Your task to perform on an android device: Add "logitech g910" to the cart on newegg Image 0: 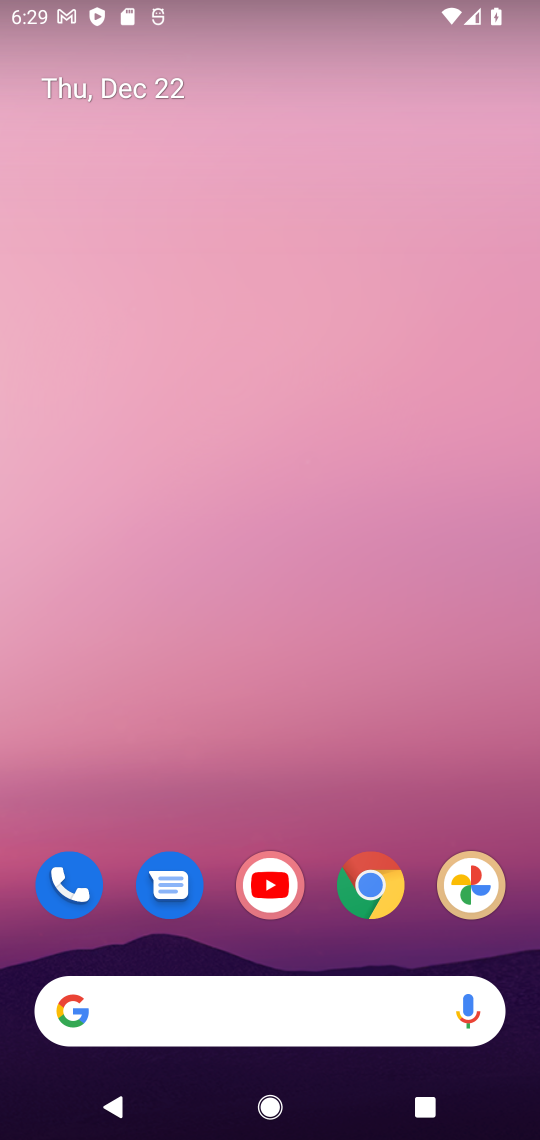
Step 0: click (375, 898)
Your task to perform on an android device: Add "logitech g910" to the cart on newegg Image 1: 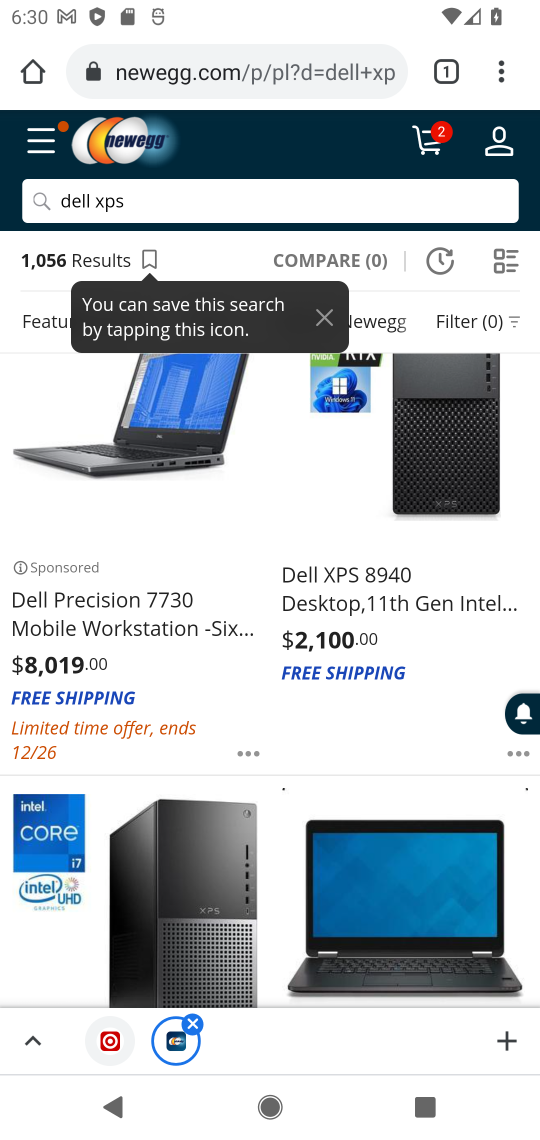
Step 1: click (134, 209)
Your task to perform on an android device: Add "logitech g910" to the cart on newegg Image 2: 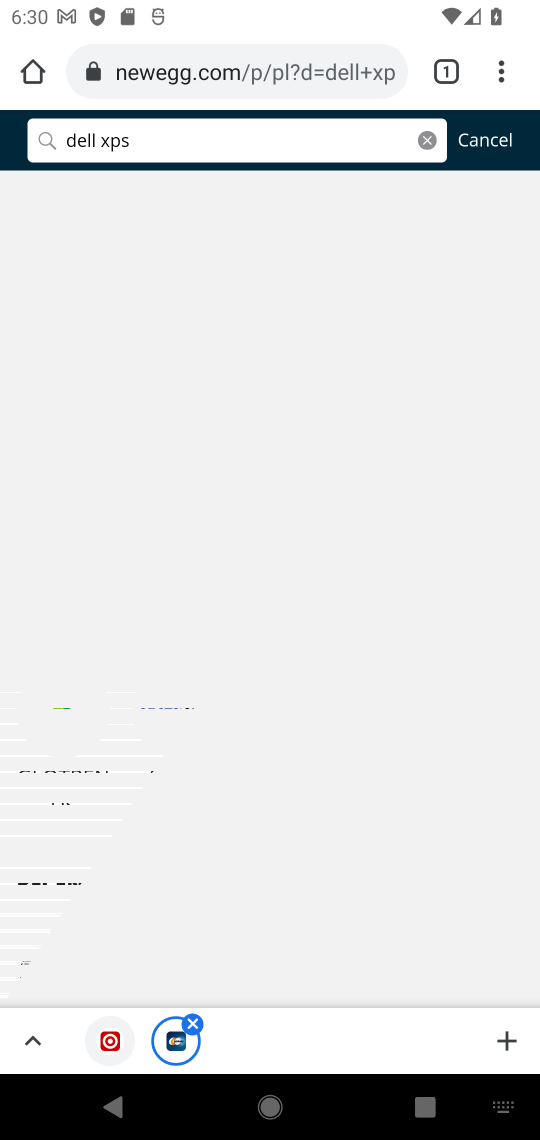
Step 2: click (421, 146)
Your task to perform on an android device: Add "logitech g910" to the cart on newegg Image 3: 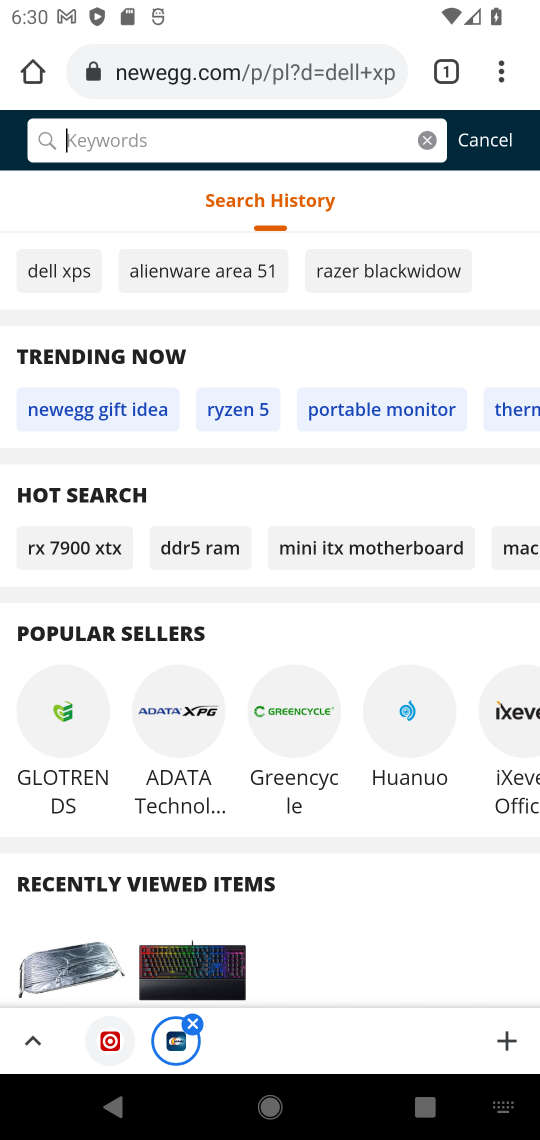
Step 3: type "logitech g910"
Your task to perform on an android device: Add "logitech g910" to the cart on newegg Image 4: 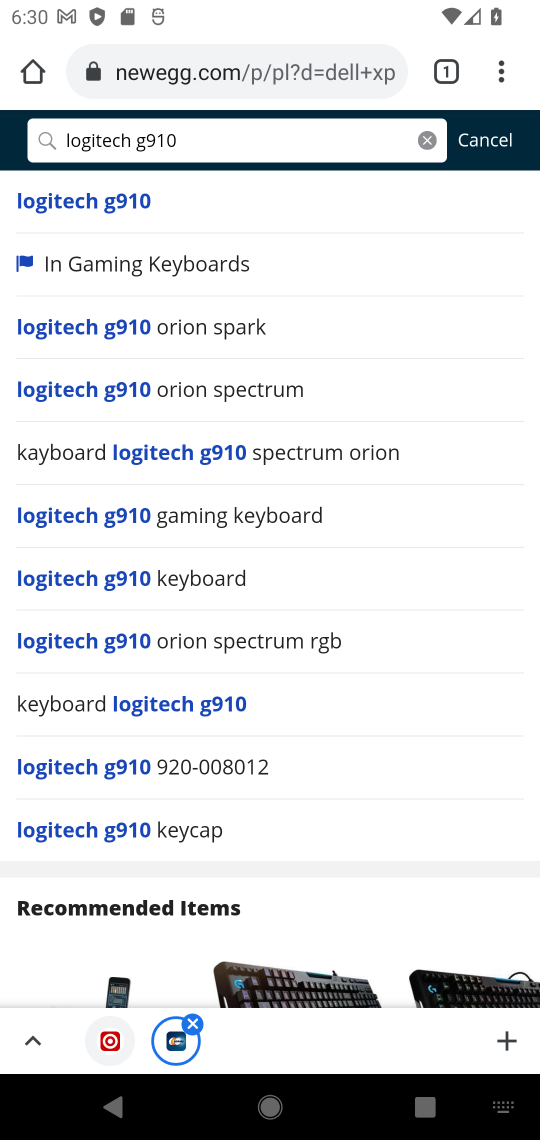
Step 4: click (116, 204)
Your task to perform on an android device: Add "logitech g910" to the cart on newegg Image 5: 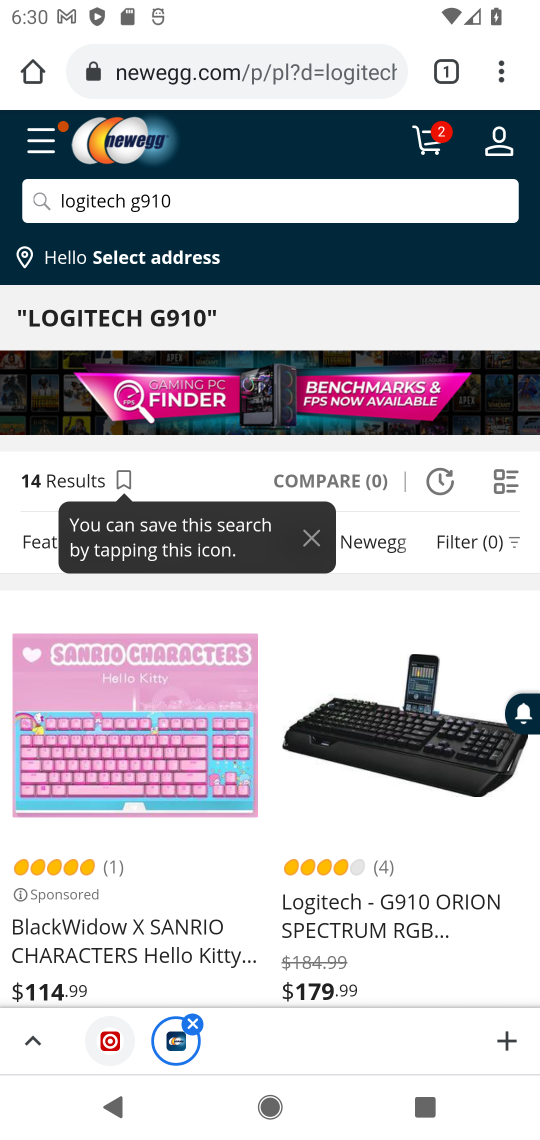
Step 5: drag from (175, 690) to (166, 361)
Your task to perform on an android device: Add "logitech g910" to the cart on newegg Image 6: 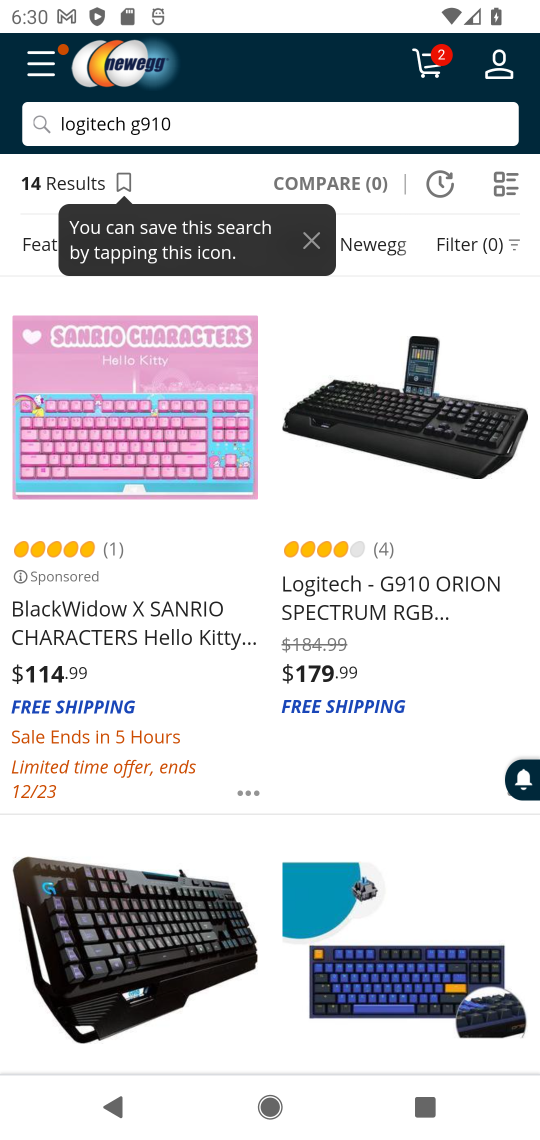
Step 6: click (335, 609)
Your task to perform on an android device: Add "logitech g910" to the cart on newegg Image 7: 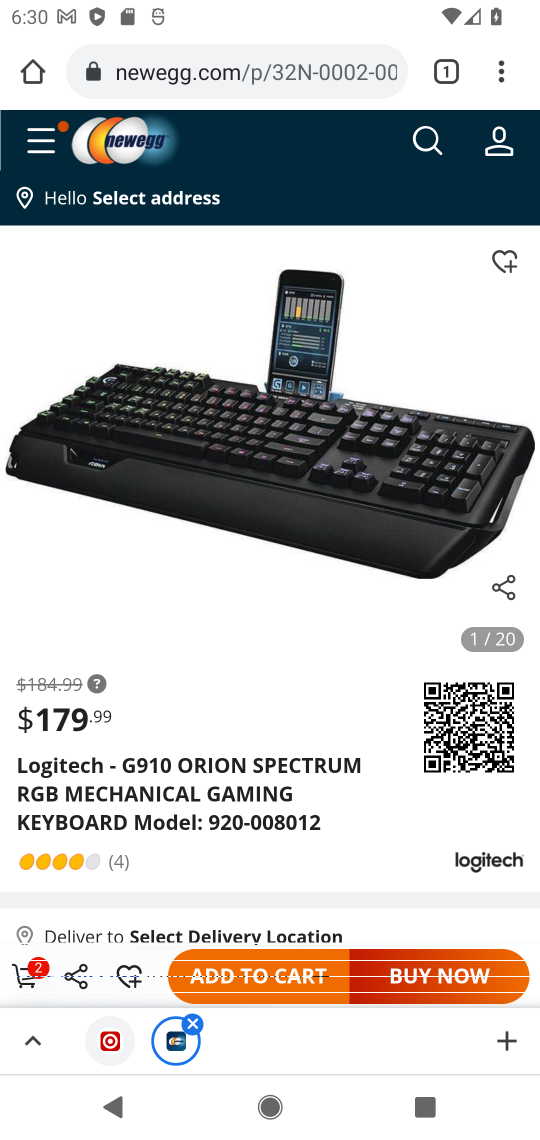
Step 7: click (243, 957)
Your task to perform on an android device: Add "logitech g910" to the cart on newegg Image 8: 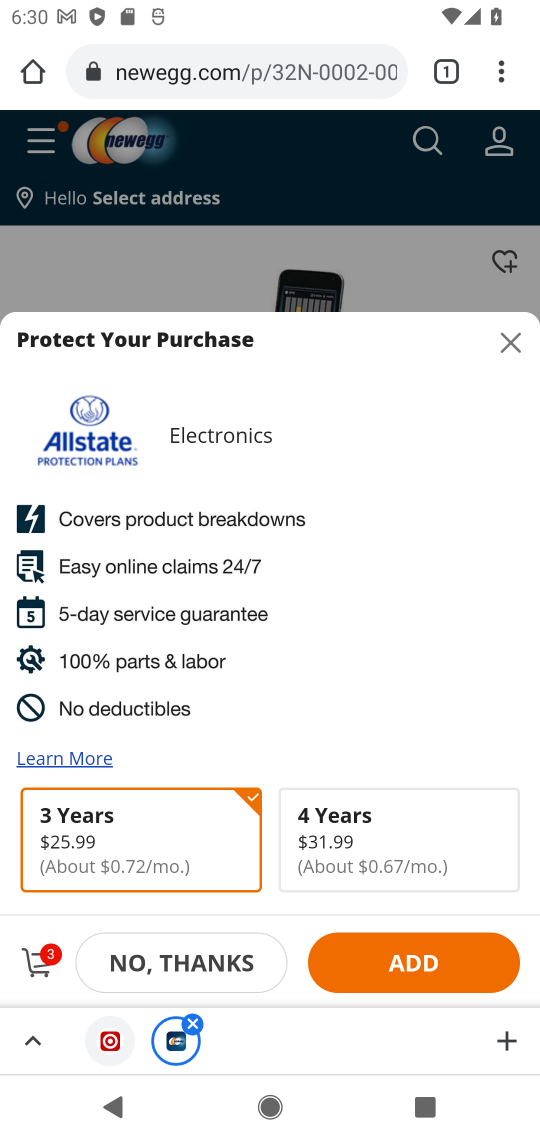
Step 8: task complete